Your task to perform on an android device: refresh tabs in the chrome app Image 0: 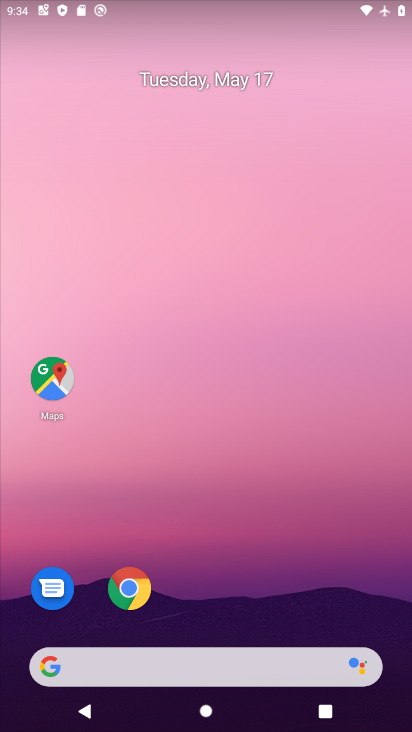
Step 0: drag from (232, 631) to (389, 7)
Your task to perform on an android device: refresh tabs in the chrome app Image 1: 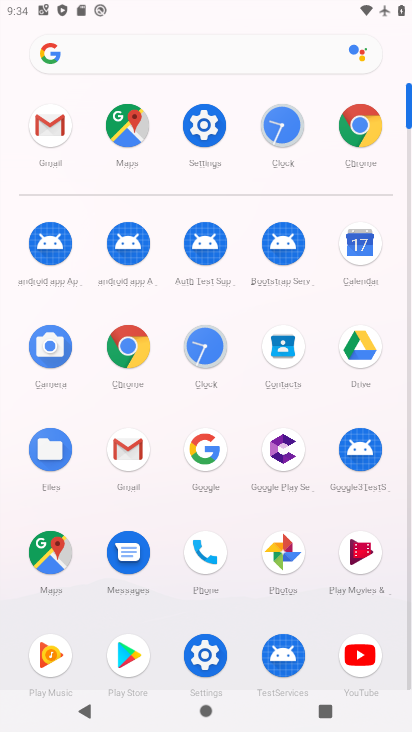
Step 1: click (111, 338)
Your task to perform on an android device: refresh tabs in the chrome app Image 2: 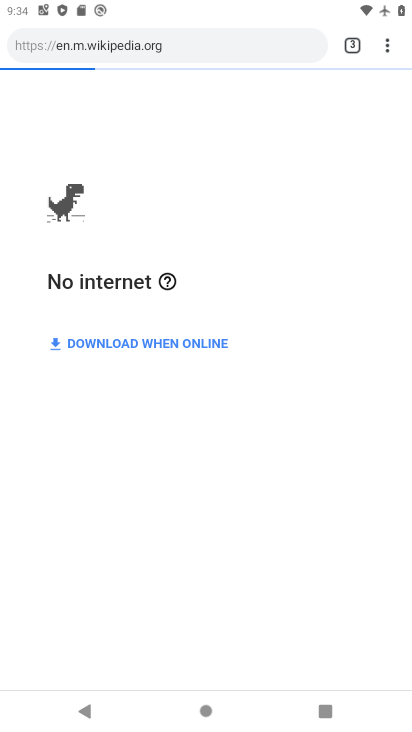
Step 2: click (388, 37)
Your task to perform on an android device: refresh tabs in the chrome app Image 3: 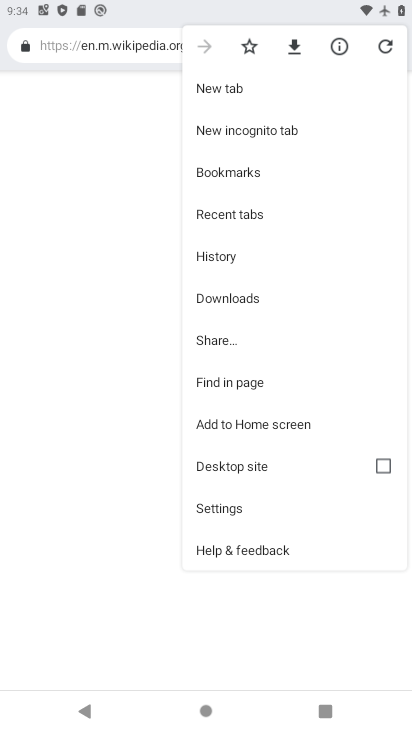
Step 3: click (384, 45)
Your task to perform on an android device: refresh tabs in the chrome app Image 4: 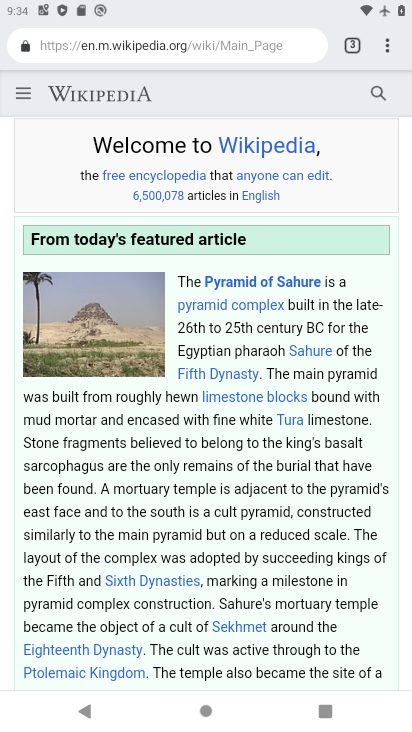
Step 4: task complete